Your task to perform on an android device: Open privacy settings Image 0: 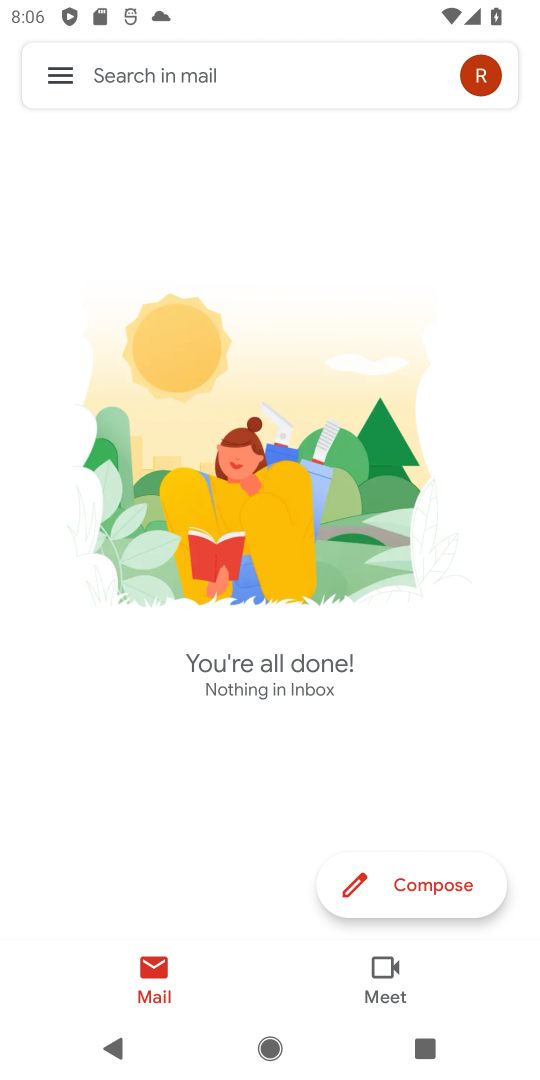
Step 0: press home button
Your task to perform on an android device: Open privacy settings Image 1: 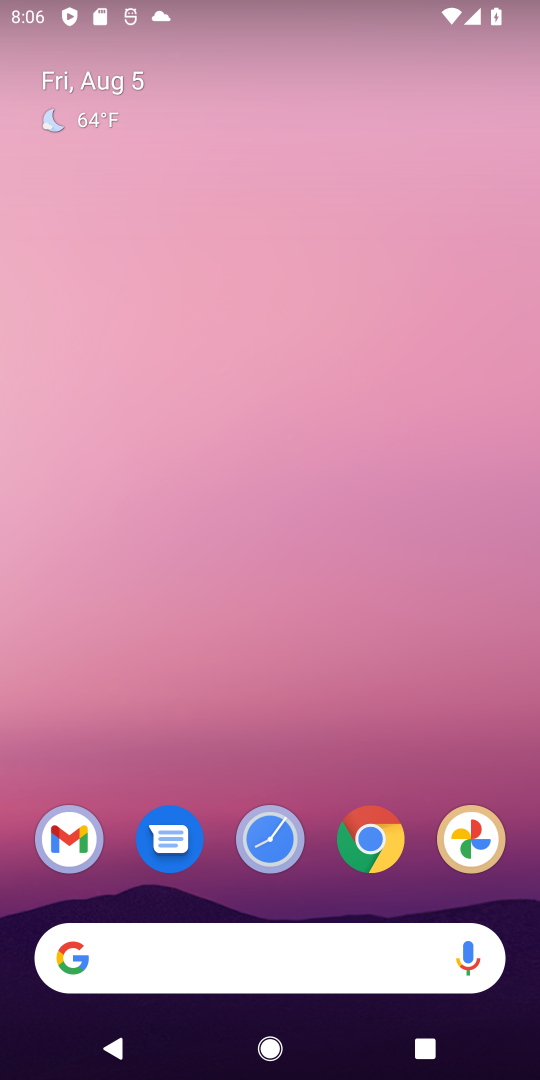
Step 1: drag from (331, 844) to (331, 314)
Your task to perform on an android device: Open privacy settings Image 2: 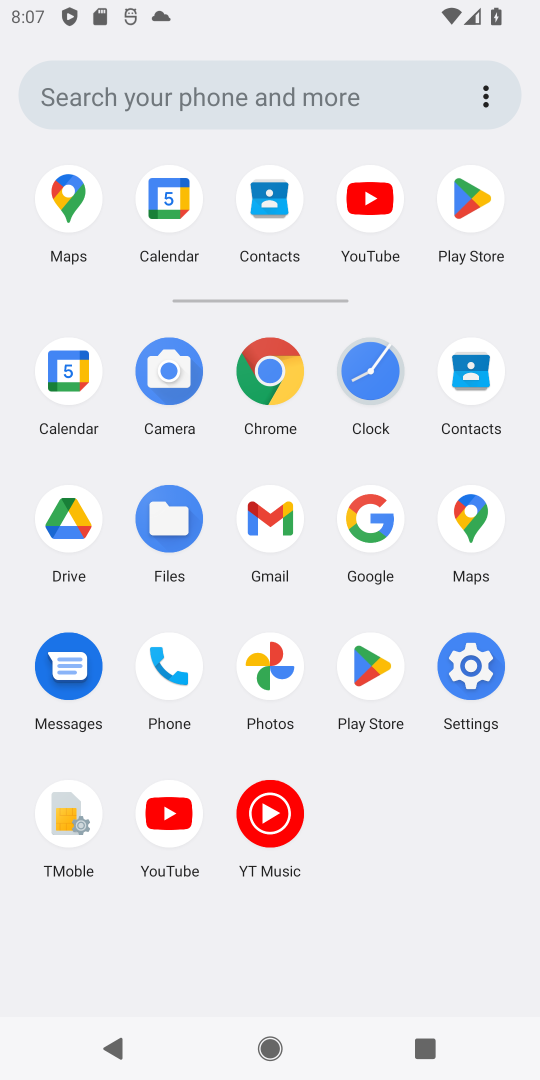
Step 2: click (441, 661)
Your task to perform on an android device: Open privacy settings Image 3: 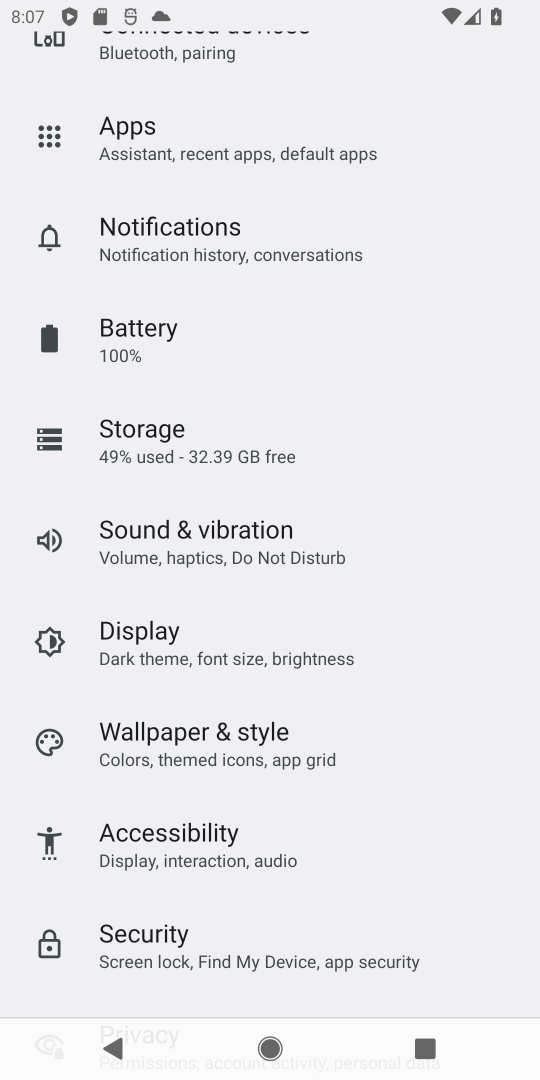
Step 3: drag from (187, 917) to (191, 411)
Your task to perform on an android device: Open privacy settings Image 4: 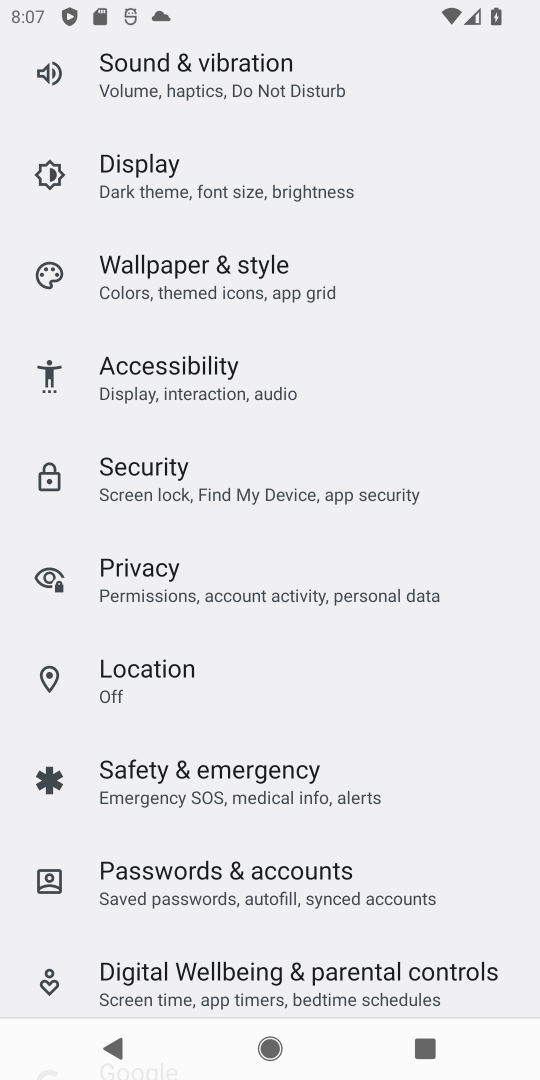
Step 4: click (144, 577)
Your task to perform on an android device: Open privacy settings Image 5: 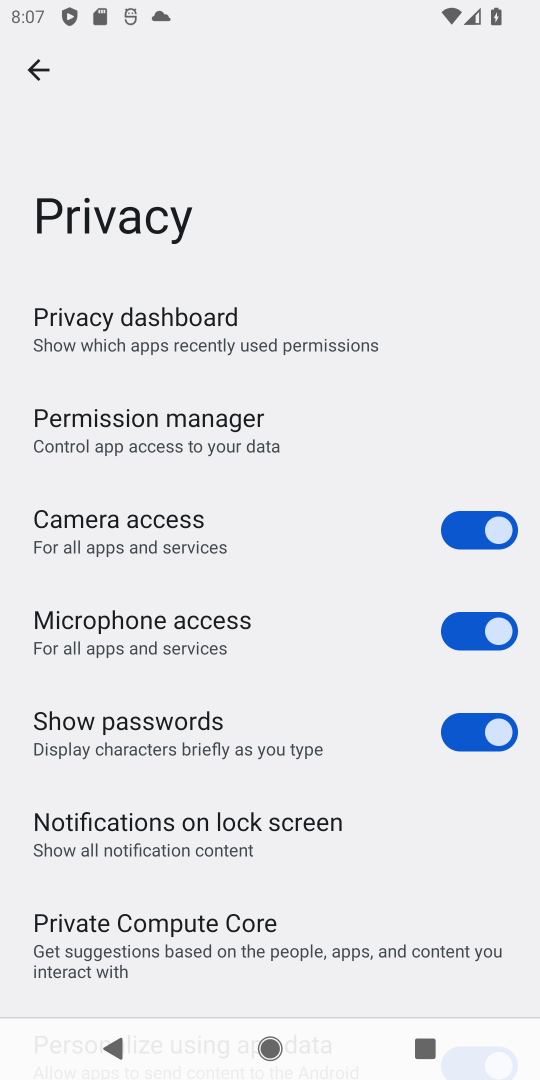
Step 5: task complete